Your task to perform on an android device: toggle priority inbox in the gmail app Image 0: 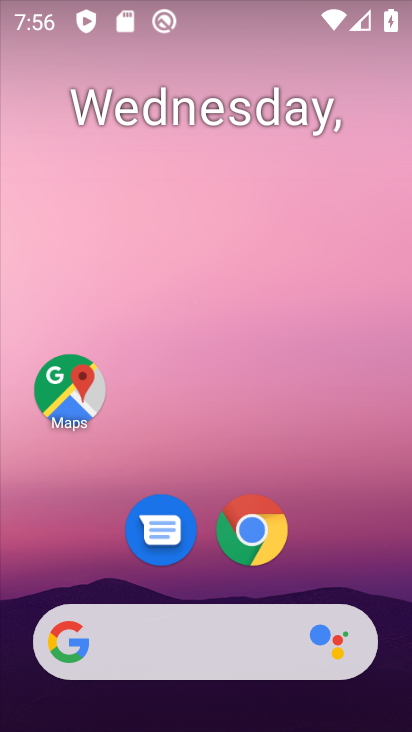
Step 0: drag from (373, 601) to (351, 7)
Your task to perform on an android device: toggle priority inbox in the gmail app Image 1: 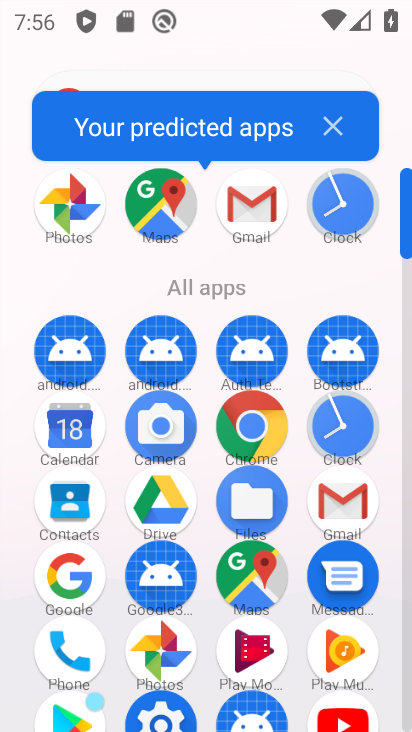
Step 1: click (252, 213)
Your task to perform on an android device: toggle priority inbox in the gmail app Image 2: 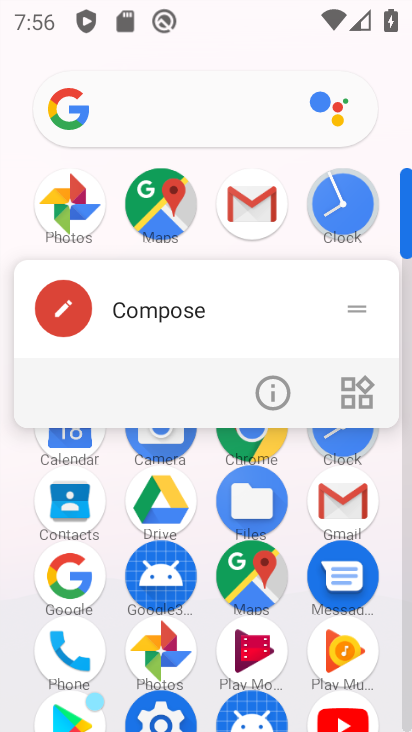
Step 2: click (251, 207)
Your task to perform on an android device: toggle priority inbox in the gmail app Image 3: 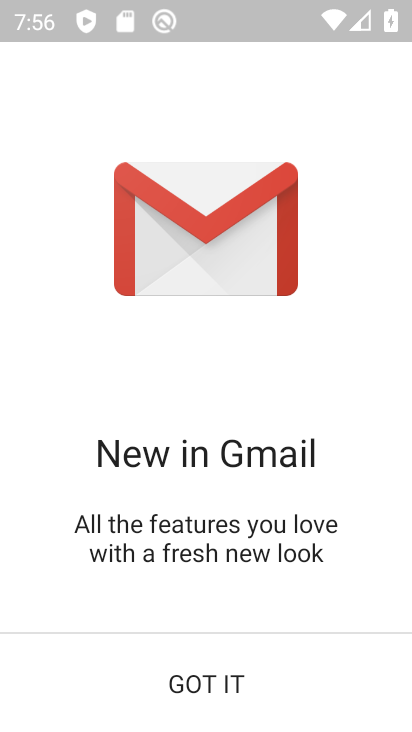
Step 3: click (199, 690)
Your task to perform on an android device: toggle priority inbox in the gmail app Image 4: 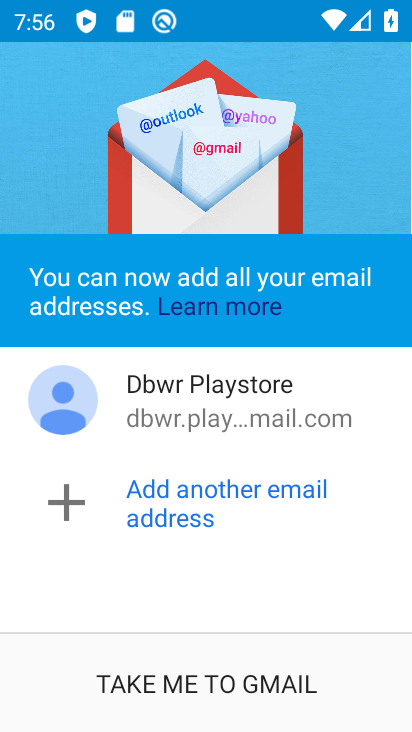
Step 4: click (199, 690)
Your task to perform on an android device: toggle priority inbox in the gmail app Image 5: 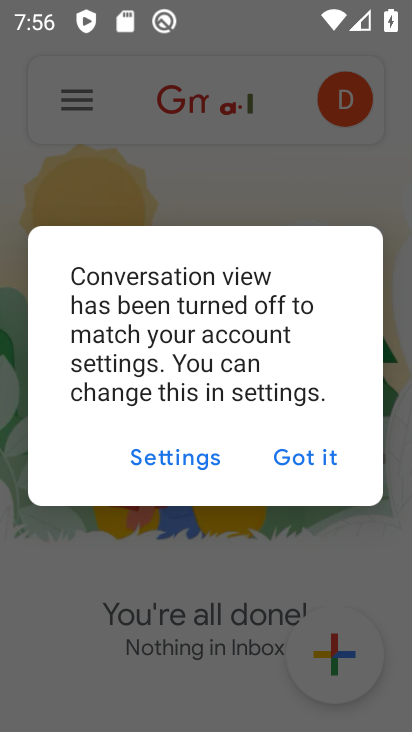
Step 5: click (285, 449)
Your task to perform on an android device: toggle priority inbox in the gmail app Image 6: 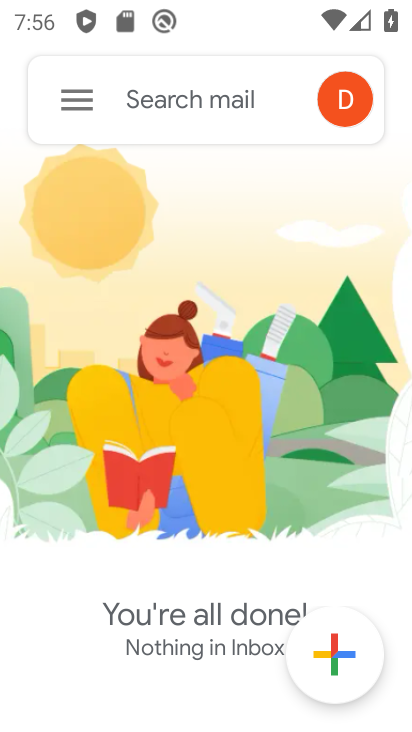
Step 6: click (70, 99)
Your task to perform on an android device: toggle priority inbox in the gmail app Image 7: 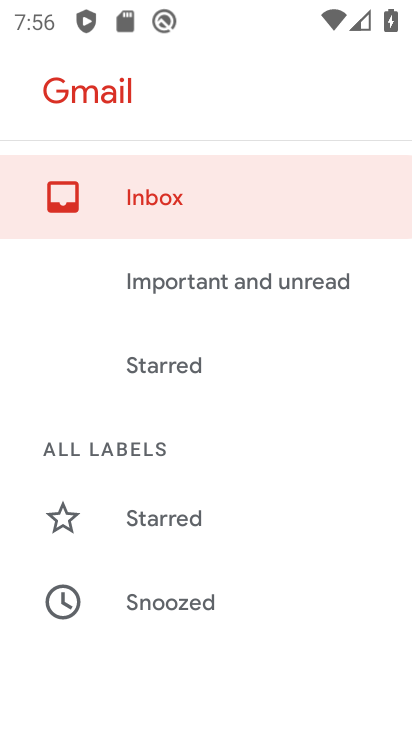
Step 7: drag from (208, 592) to (184, 24)
Your task to perform on an android device: toggle priority inbox in the gmail app Image 8: 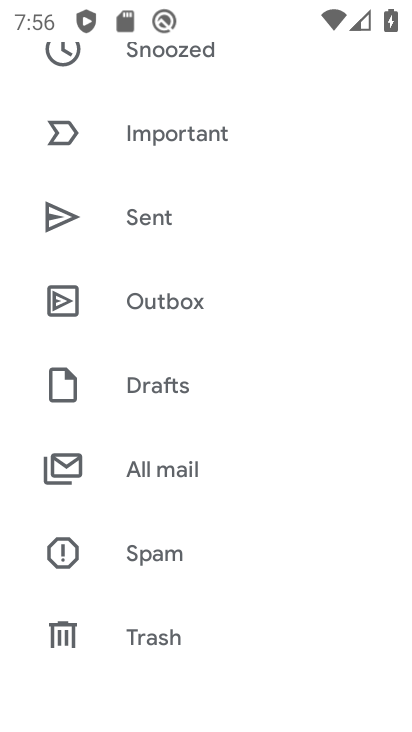
Step 8: drag from (192, 536) to (166, 52)
Your task to perform on an android device: toggle priority inbox in the gmail app Image 9: 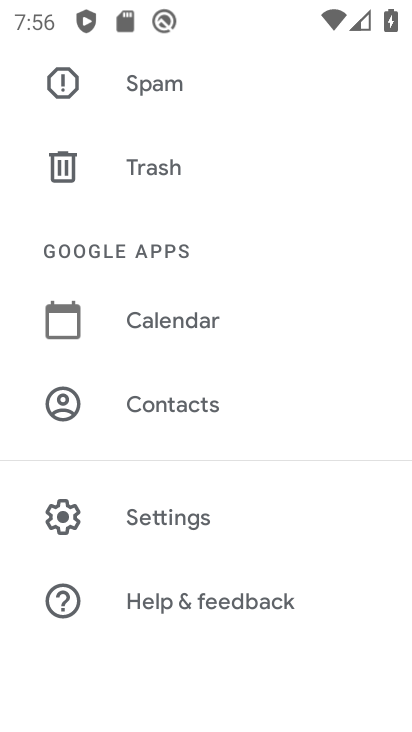
Step 9: click (170, 522)
Your task to perform on an android device: toggle priority inbox in the gmail app Image 10: 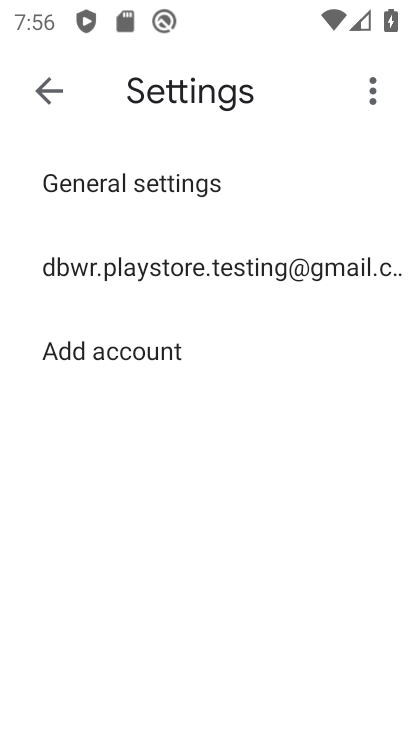
Step 10: click (107, 278)
Your task to perform on an android device: toggle priority inbox in the gmail app Image 11: 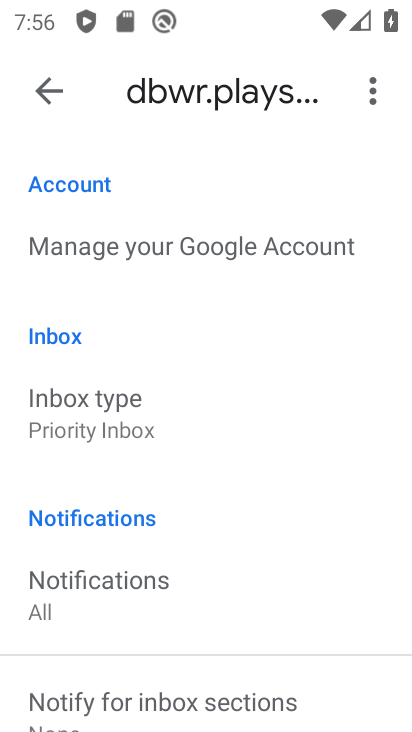
Step 11: click (92, 411)
Your task to perform on an android device: toggle priority inbox in the gmail app Image 12: 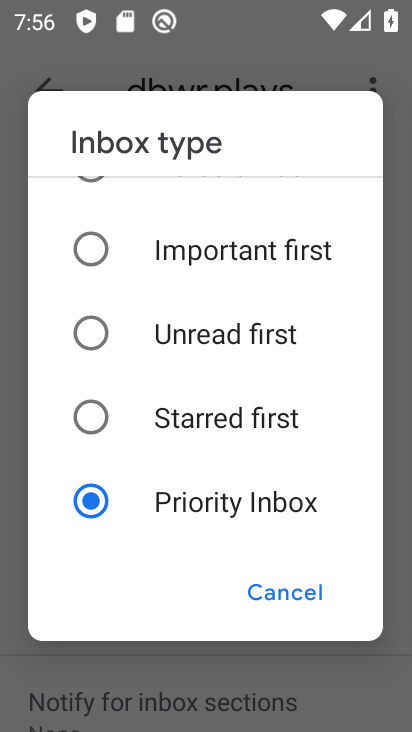
Step 12: click (89, 252)
Your task to perform on an android device: toggle priority inbox in the gmail app Image 13: 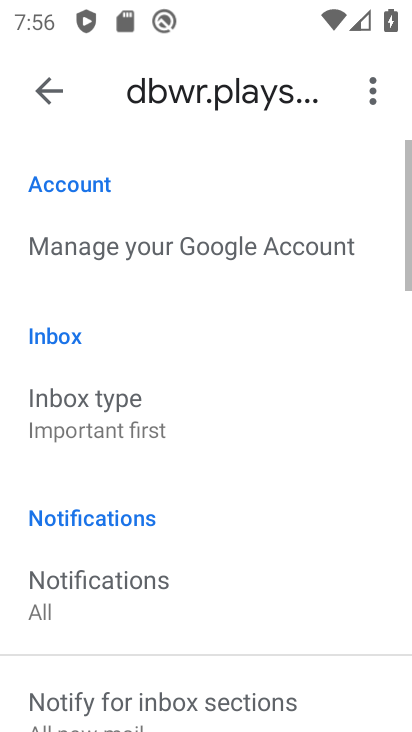
Step 13: task complete